Your task to perform on an android device: Show me recent news Image 0: 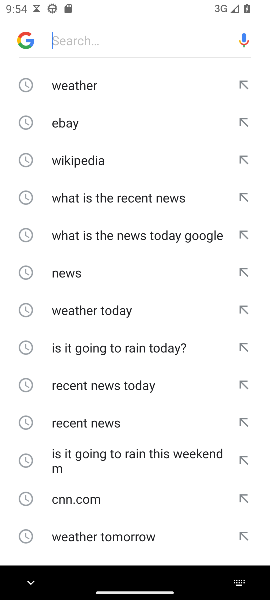
Step 0: press home button
Your task to perform on an android device: Show me recent news Image 1: 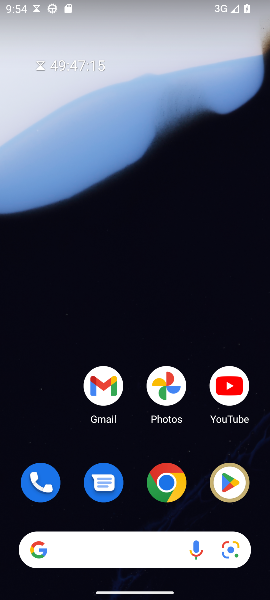
Step 1: click (169, 488)
Your task to perform on an android device: Show me recent news Image 2: 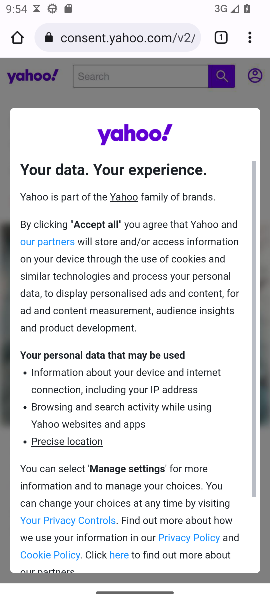
Step 2: task complete